Your task to perform on an android device: Search for the best rated mattress topper on Target. Image 0: 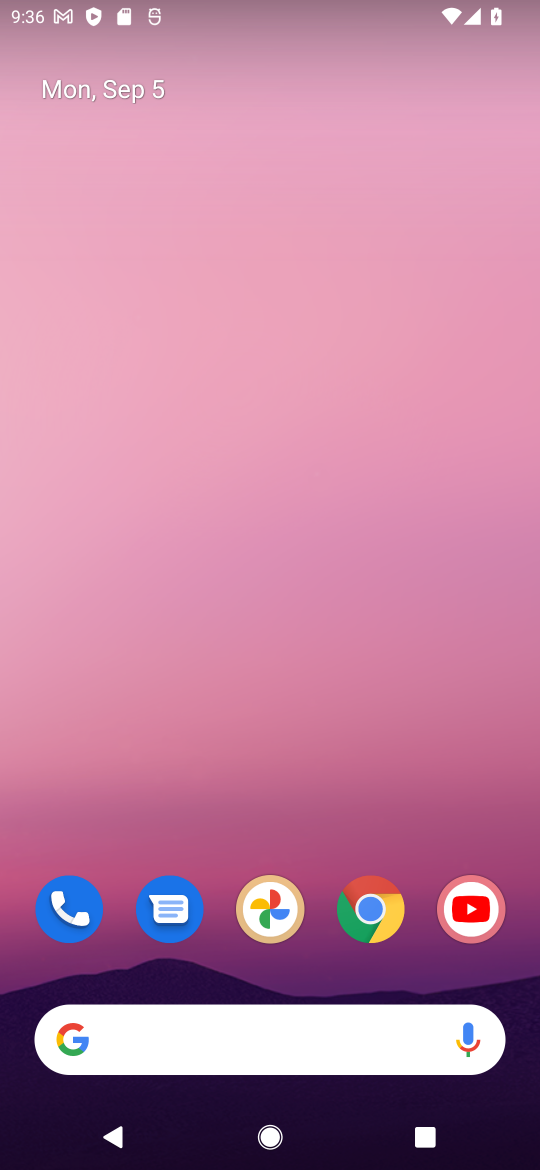
Step 0: click (384, 901)
Your task to perform on an android device: Search for the best rated mattress topper on Target. Image 1: 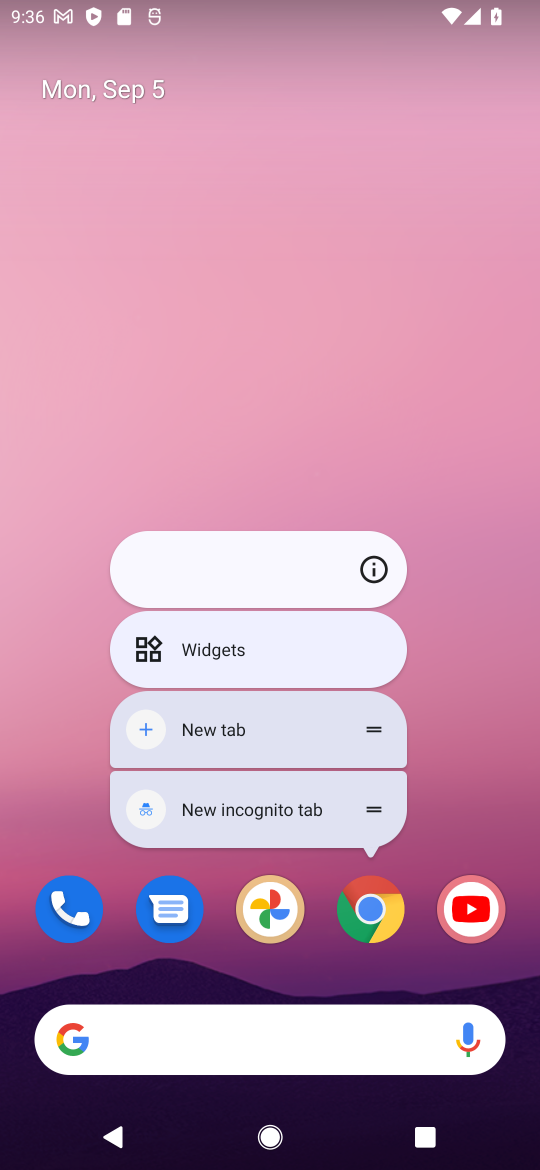
Step 1: click (384, 901)
Your task to perform on an android device: Search for the best rated mattress topper on Target. Image 2: 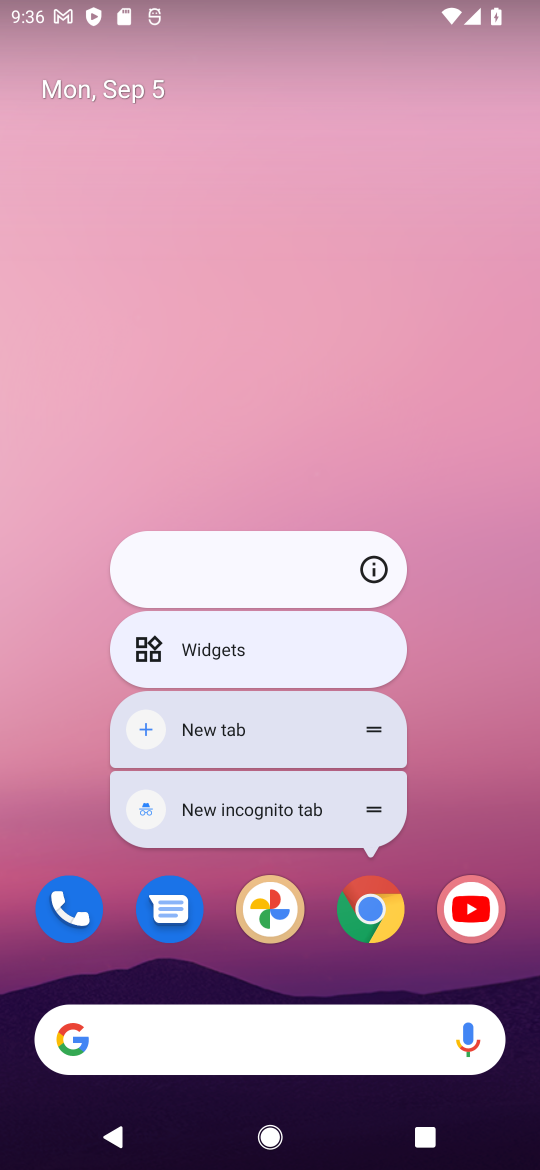
Step 2: click (384, 901)
Your task to perform on an android device: Search for the best rated mattress topper on Target. Image 3: 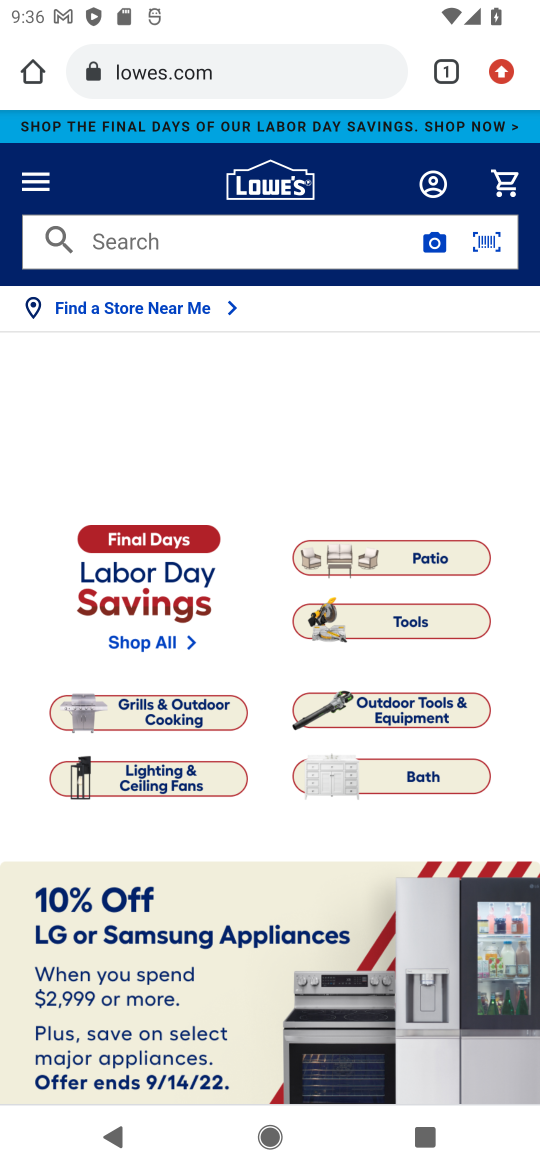
Step 3: click (172, 80)
Your task to perform on an android device: Search for the best rated mattress topper on Target. Image 4: 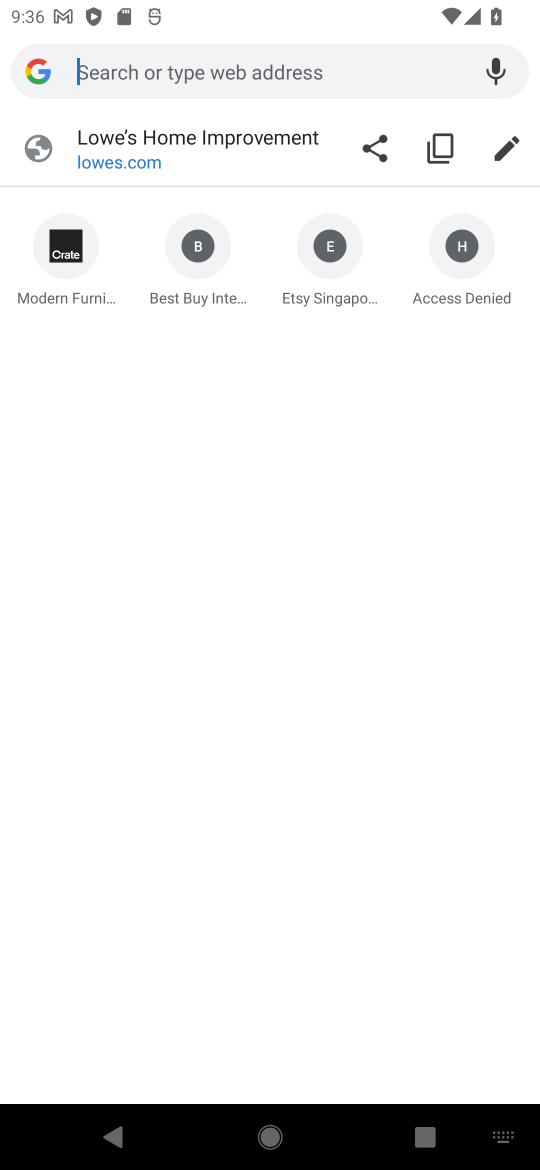
Step 4: type "target"
Your task to perform on an android device: Search for the best rated mattress topper on Target. Image 5: 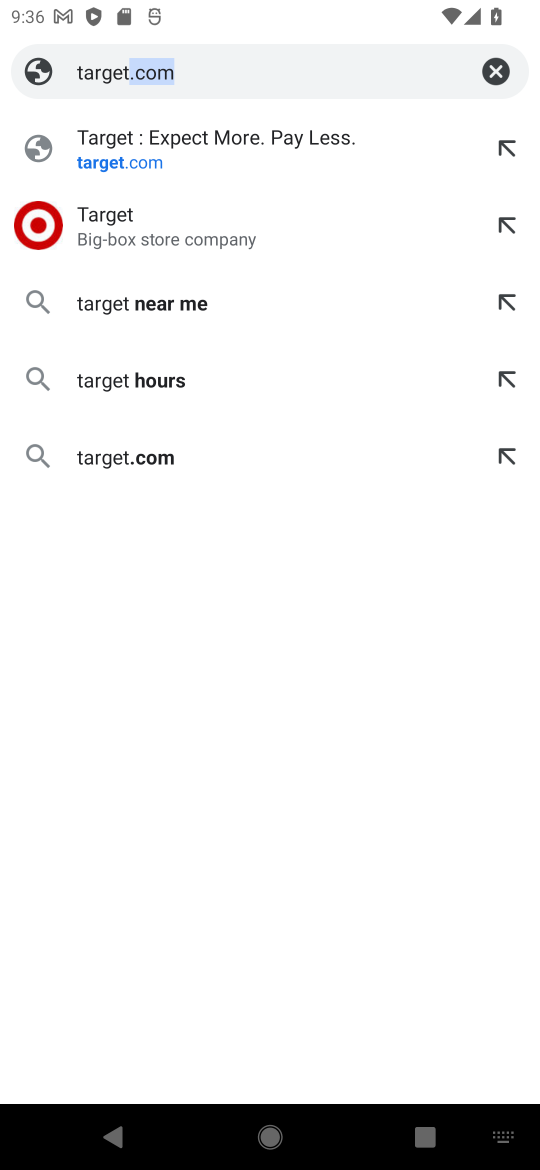
Step 5: click (162, 154)
Your task to perform on an android device: Search for the best rated mattress topper on Target. Image 6: 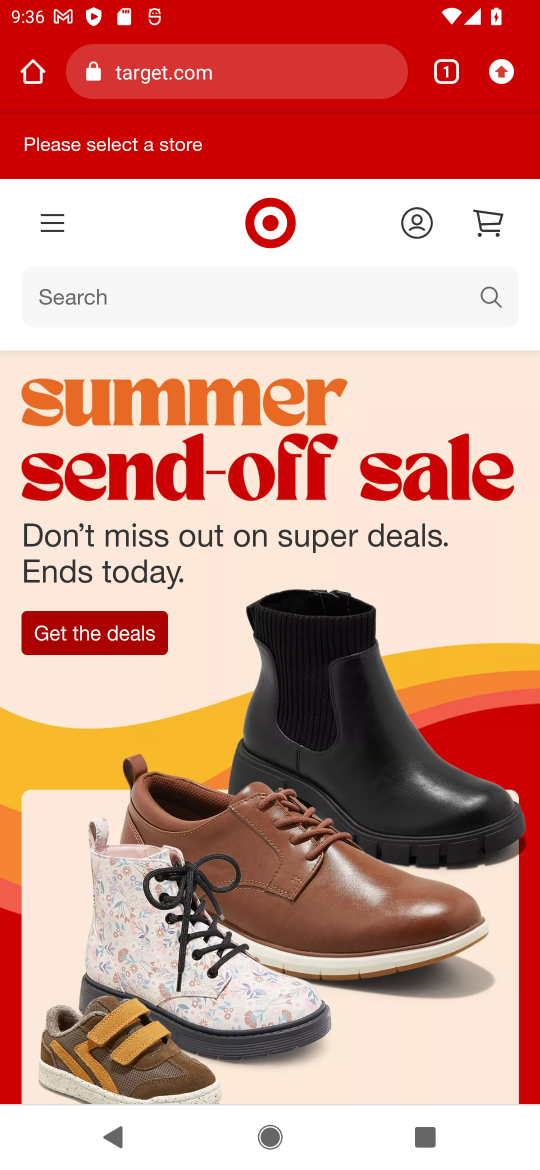
Step 6: click (343, 289)
Your task to perform on an android device: Search for the best rated mattress topper on Target. Image 7: 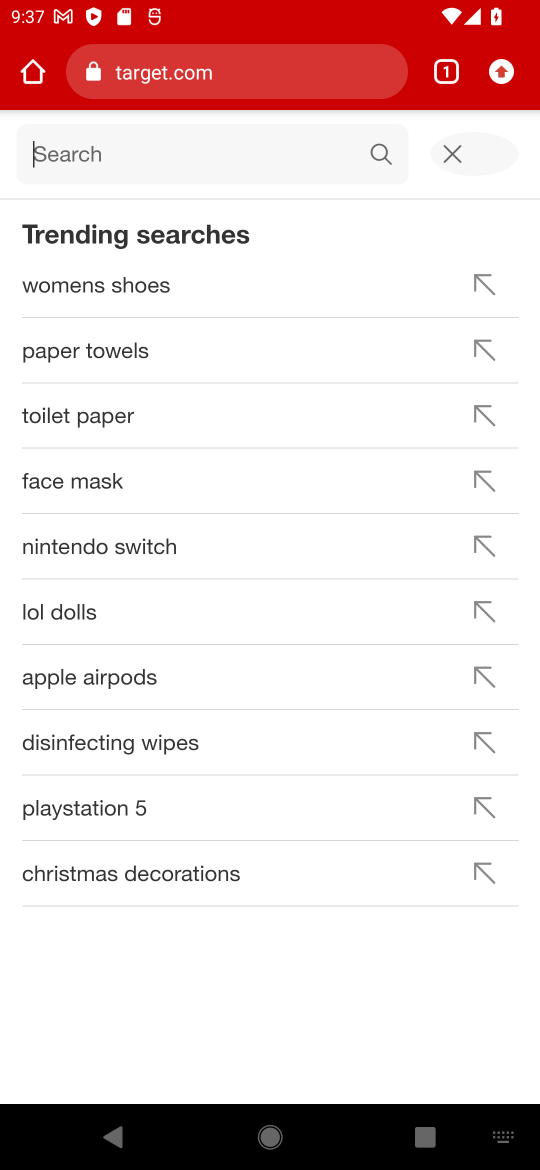
Step 7: type "best rated mattress topper"
Your task to perform on an android device: Search for the best rated mattress topper on Target. Image 8: 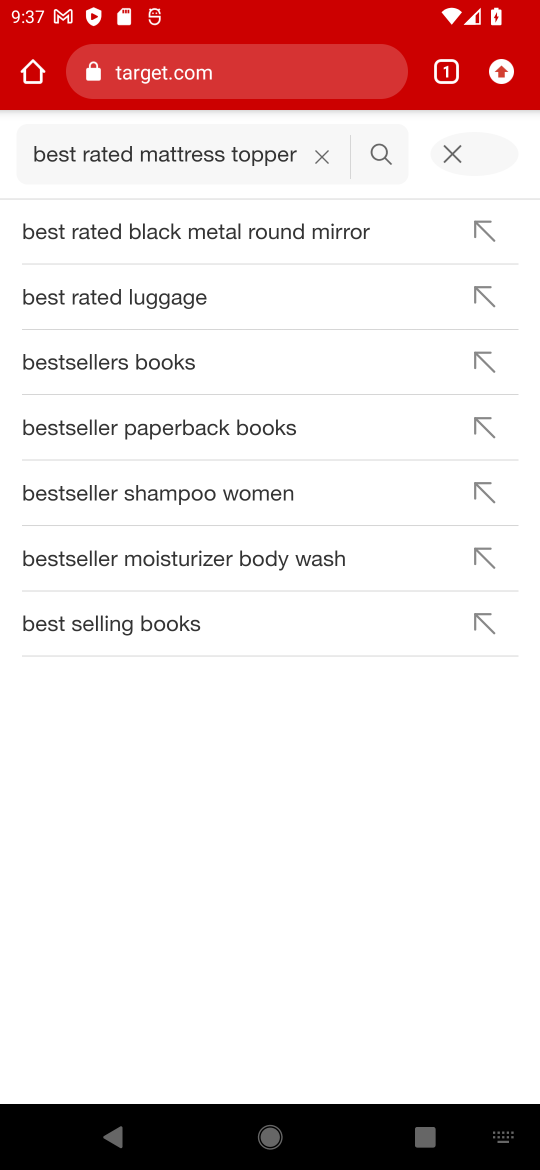
Step 8: click (383, 151)
Your task to perform on an android device: Search for the best rated mattress topper on Target. Image 9: 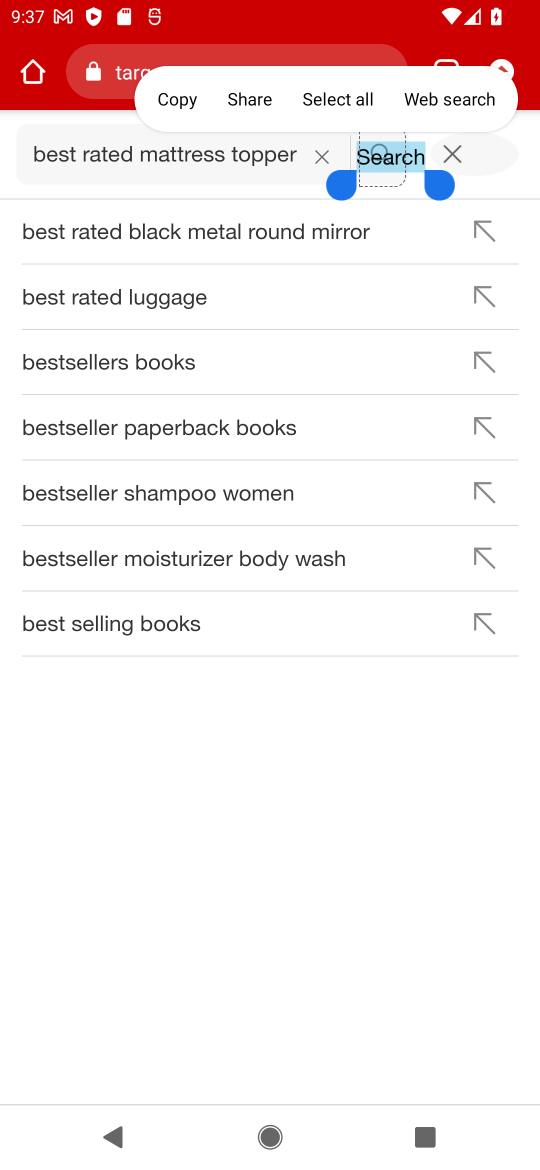
Step 9: click (386, 166)
Your task to perform on an android device: Search for the best rated mattress topper on Target. Image 10: 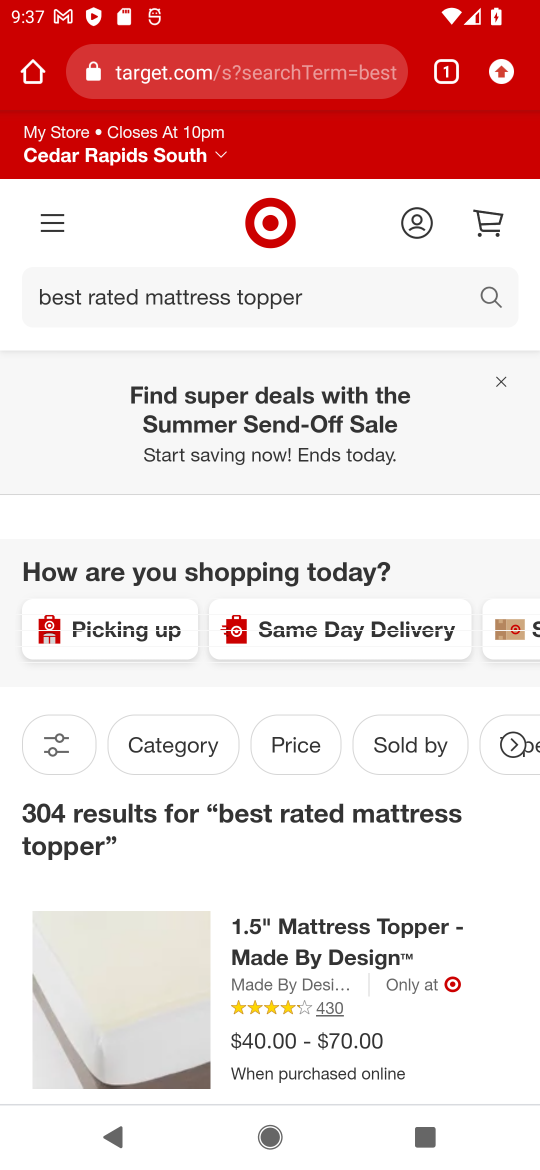
Step 10: task complete